Your task to perform on an android device: turn notification dots on Image 0: 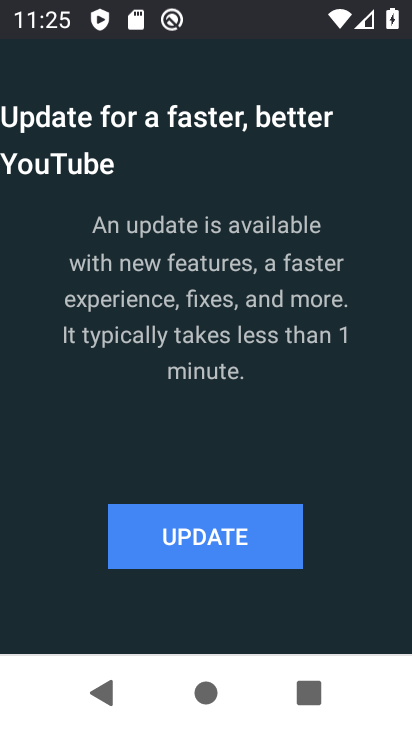
Step 0: press back button
Your task to perform on an android device: turn notification dots on Image 1: 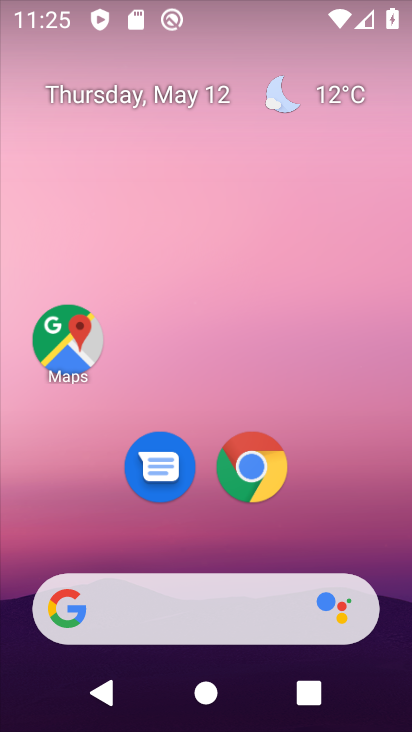
Step 1: drag from (377, 505) to (269, 43)
Your task to perform on an android device: turn notification dots on Image 2: 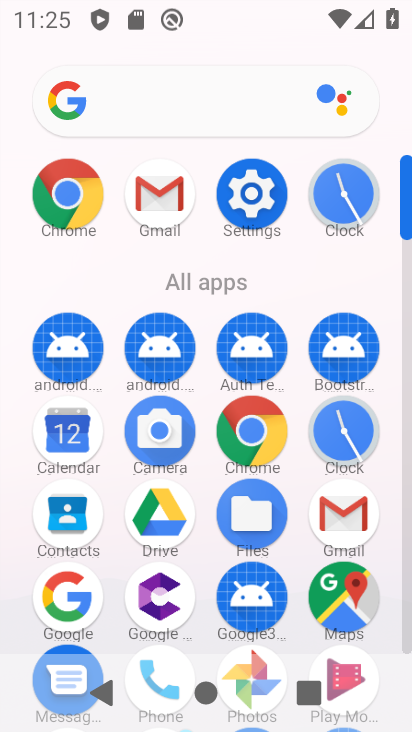
Step 2: drag from (6, 526) to (17, 233)
Your task to perform on an android device: turn notification dots on Image 3: 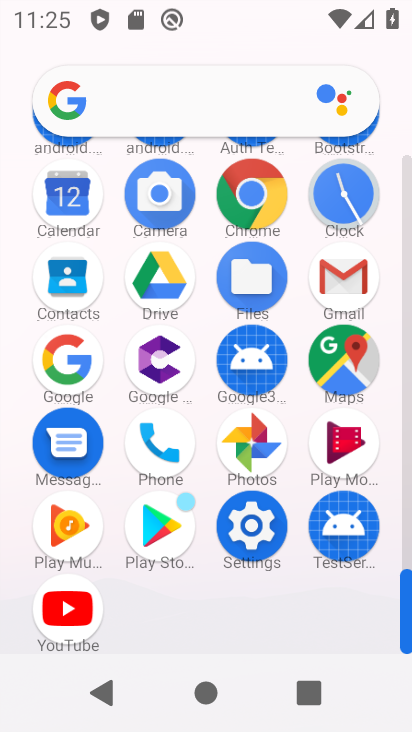
Step 3: click (249, 526)
Your task to perform on an android device: turn notification dots on Image 4: 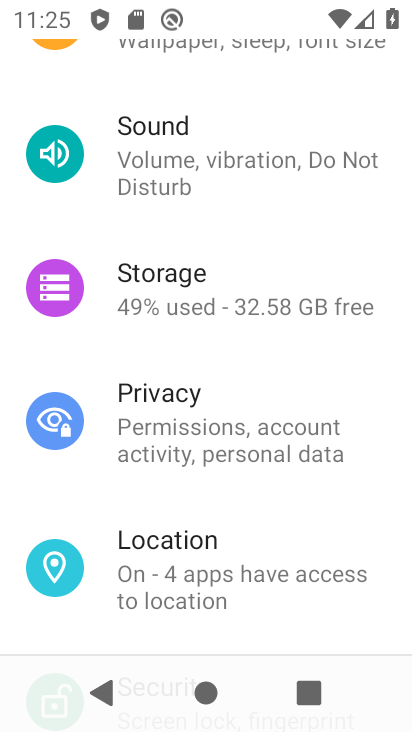
Step 4: drag from (291, 226) to (277, 607)
Your task to perform on an android device: turn notification dots on Image 5: 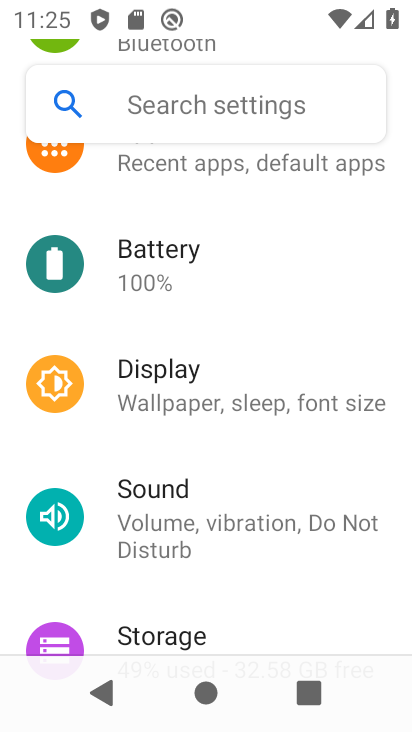
Step 5: drag from (259, 262) to (263, 592)
Your task to perform on an android device: turn notification dots on Image 6: 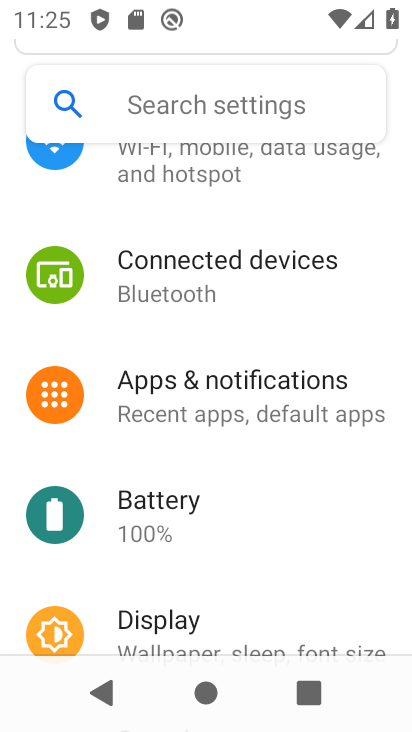
Step 6: click (236, 395)
Your task to perform on an android device: turn notification dots on Image 7: 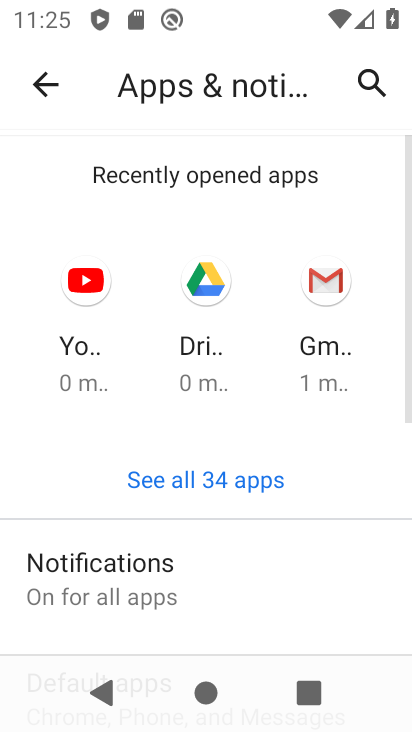
Step 7: drag from (268, 542) to (276, 184)
Your task to perform on an android device: turn notification dots on Image 8: 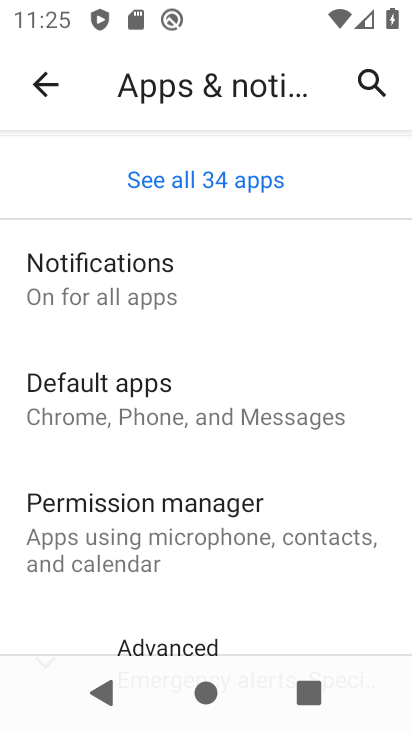
Step 8: click (181, 283)
Your task to perform on an android device: turn notification dots on Image 9: 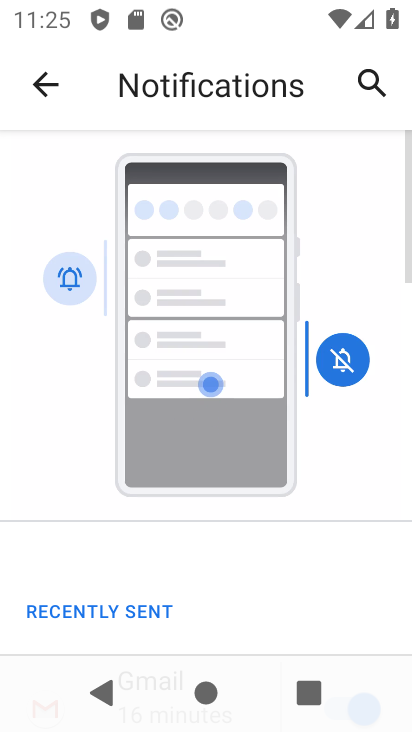
Step 9: drag from (254, 551) to (260, 164)
Your task to perform on an android device: turn notification dots on Image 10: 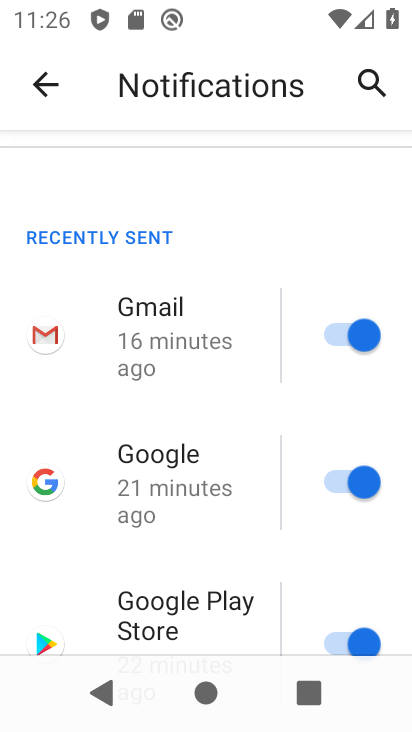
Step 10: drag from (213, 546) to (196, 130)
Your task to perform on an android device: turn notification dots on Image 11: 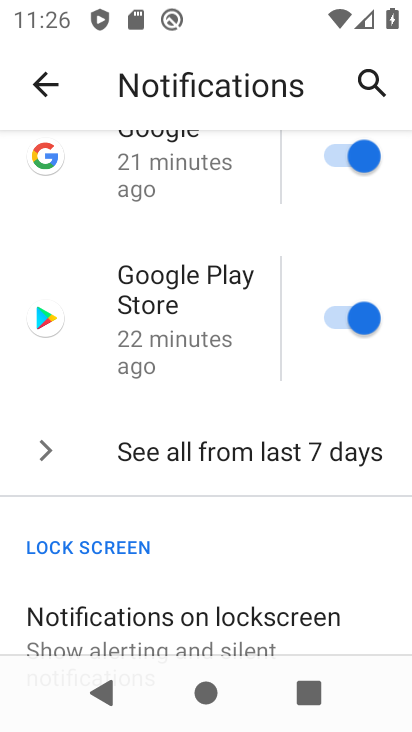
Step 11: drag from (214, 524) to (219, 175)
Your task to perform on an android device: turn notification dots on Image 12: 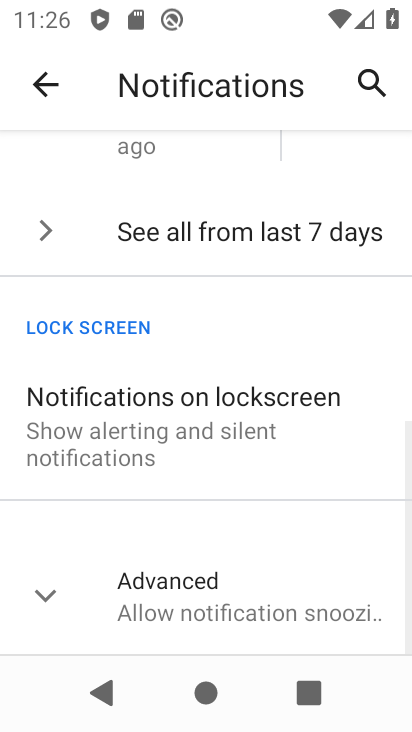
Step 12: drag from (219, 539) to (214, 256)
Your task to perform on an android device: turn notification dots on Image 13: 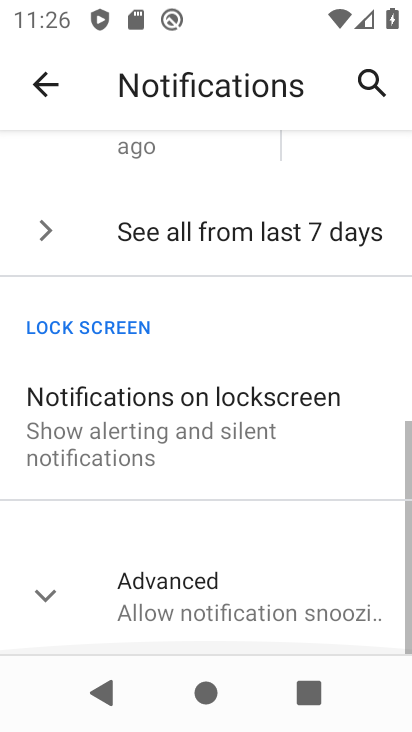
Step 13: click (47, 582)
Your task to perform on an android device: turn notification dots on Image 14: 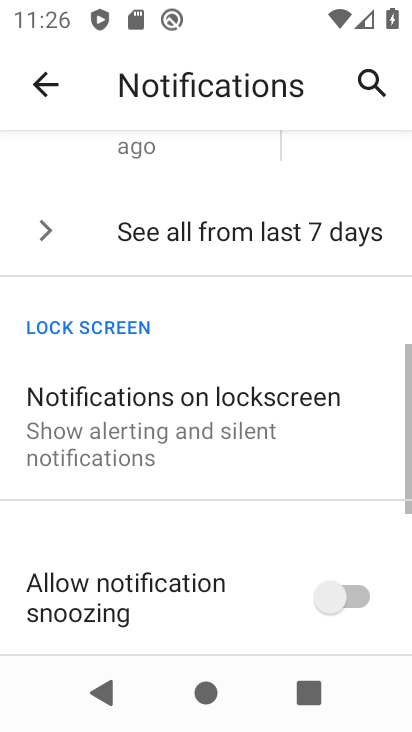
Step 14: task complete